Your task to perform on an android device: open device folders in google photos Image 0: 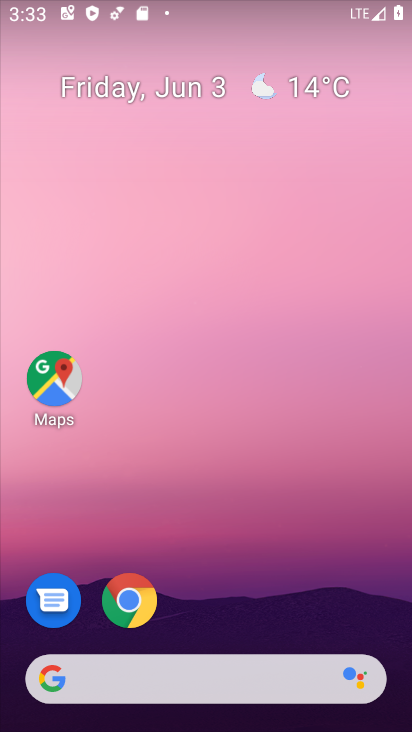
Step 0: drag from (282, 566) to (260, 343)
Your task to perform on an android device: open device folders in google photos Image 1: 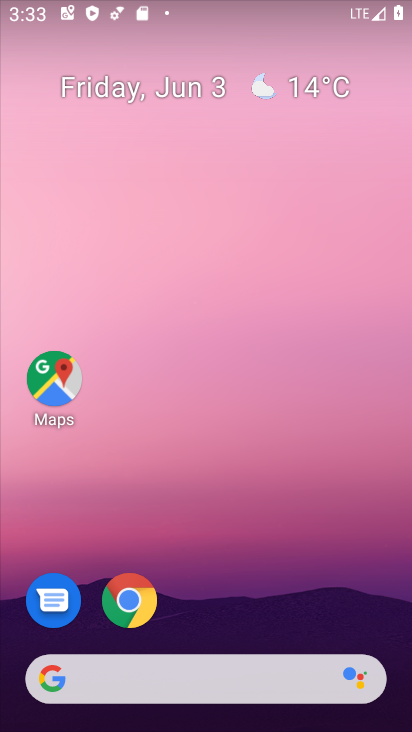
Step 1: drag from (255, 545) to (282, 305)
Your task to perform on an android device: open device folders in google photos Image 2: 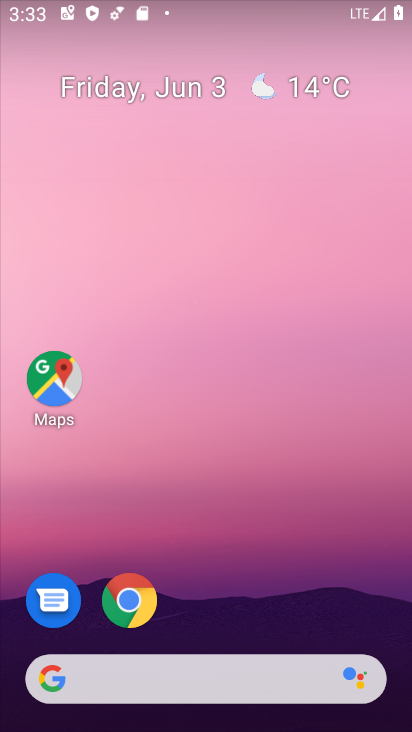
Step 2: drag from (243, 590) to (255, 240)
Your task to perform on an android device: open device folders in google photos Image 3: 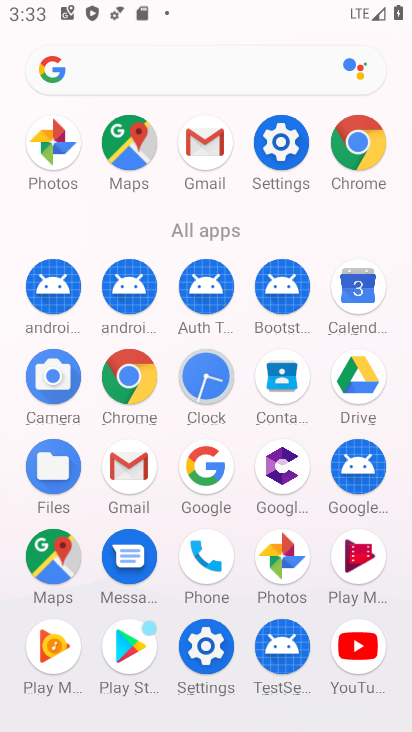
Step 3: click (277, 564)
Your task to perform on an android device: open device folders in google photos Image 4: 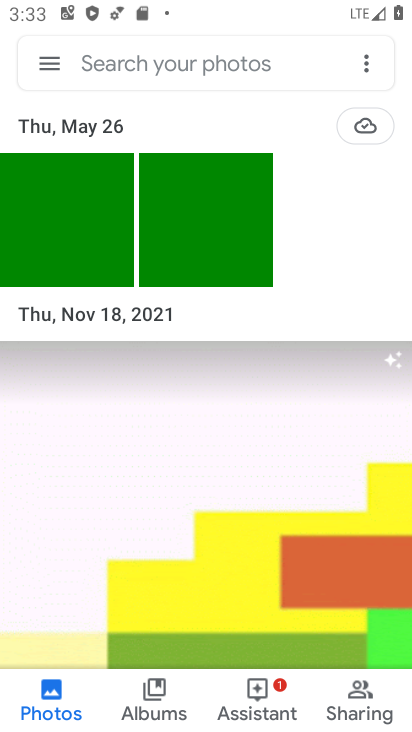
Step 4: click (51, 60)
Your task to perform on an android device: open device folders in google photos Image 5: 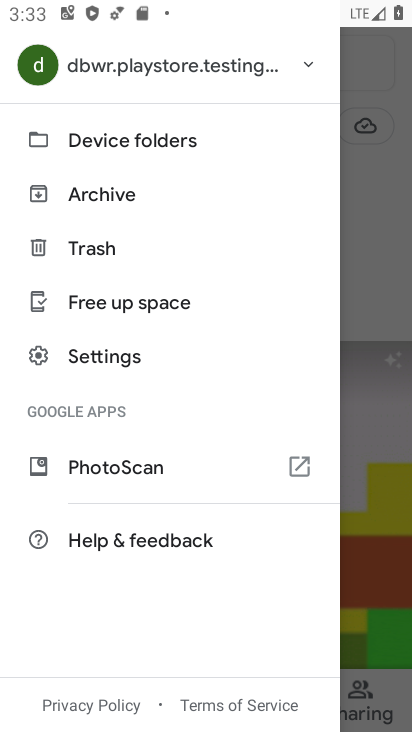
Step 5: click (105, 145)
Your task to perform on an android device: open device folders in google photos Image 6: 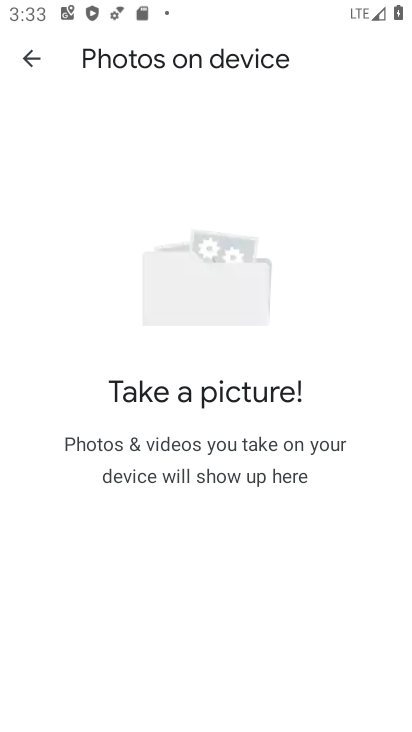
Step 6: task complete